Your task to perform on an android device: turn pop-ups on in chrome Image 0: 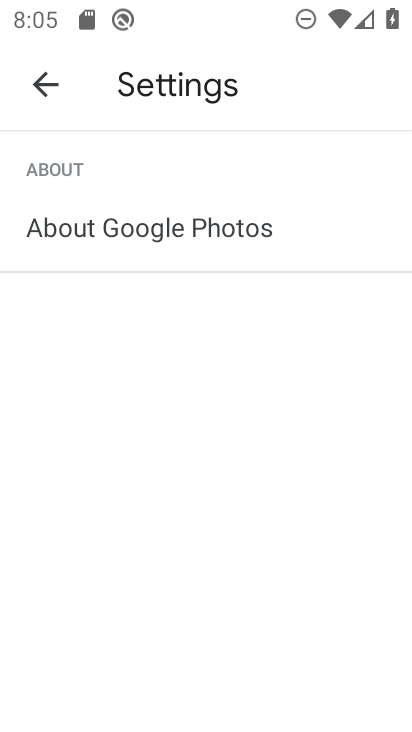
Step 0: click (24, 79)
Your task to perform on an android device: turn pop-ups on in chrome Image 1: 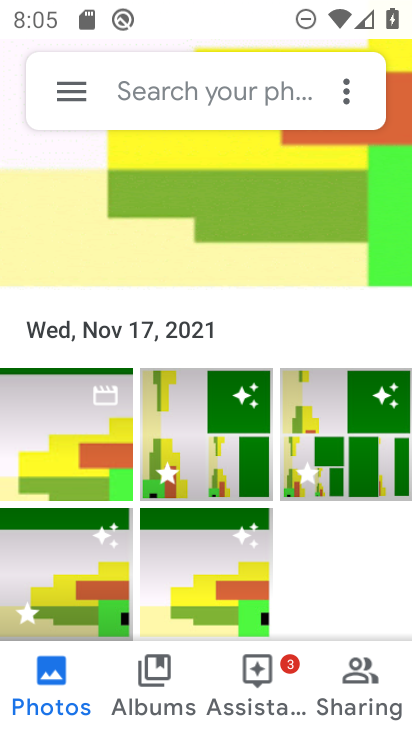
Step 1: press back button
Your task to perform on an android device: turn pop-ups on in chrome Image 2: 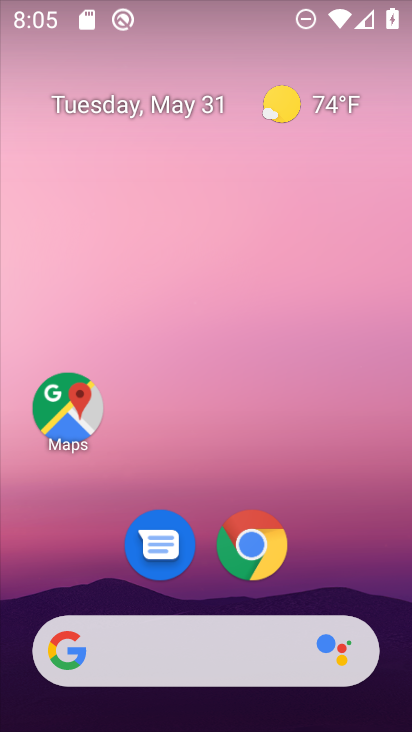
Step 2: drag from (327, 559) to (221, 1)
Your task to perform on an android device: turn pop-ups on in chrome Image 3: 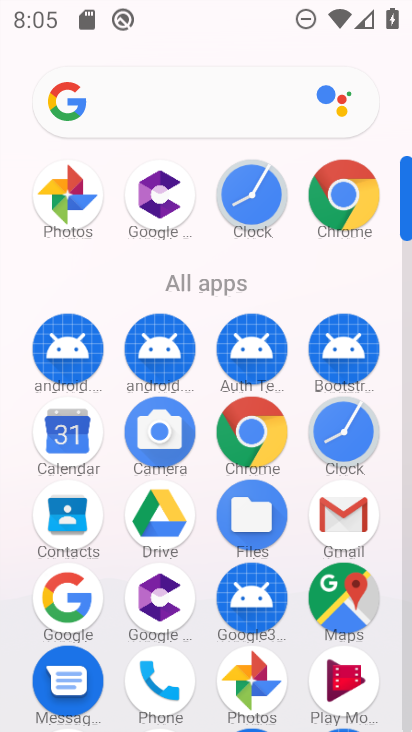
Step 3: drag from (11, 593) to (5, 212)
Your task to perform on an android device: turn pop-ups on in chrome Image 4: 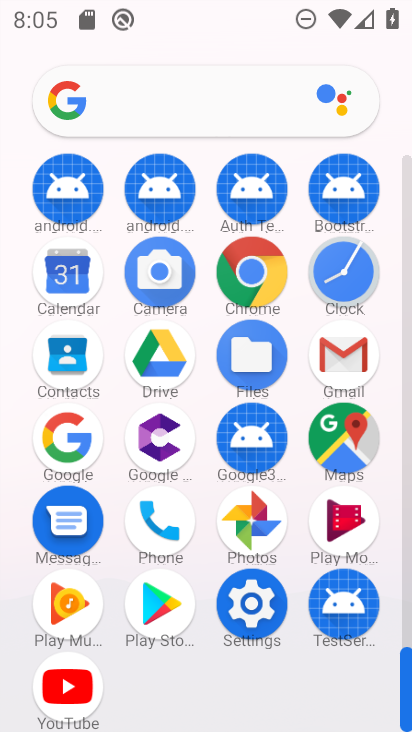
Step 4: click (244, 266)
Your task to perform on an android device: turn pop-ups on in chrome Image 5: 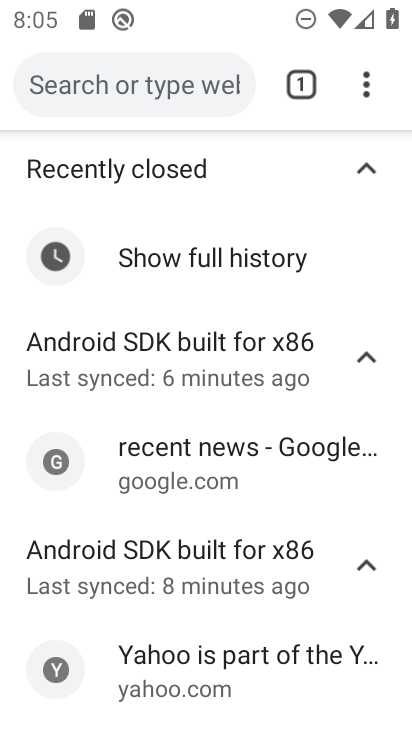
Step 5: drag from (364, 85) to (156, 586)
Your task to perform on an android device: turn pop-ups on in chrome Image 6: 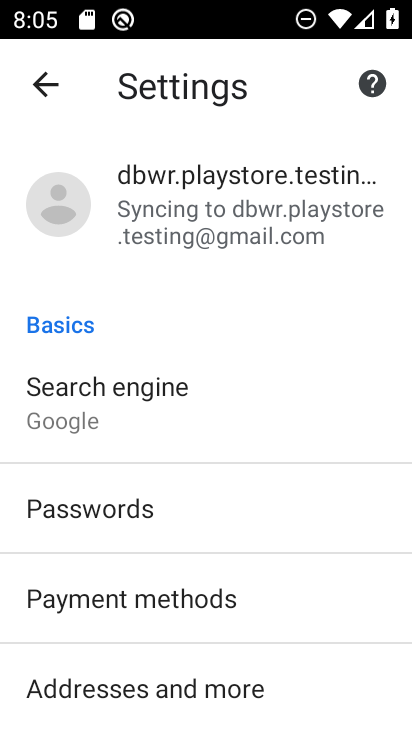
Step 6: drag from (227, 592) to (234, 214)
Your task to perform on an android device: turn pop-ups on in chrome Image 7: 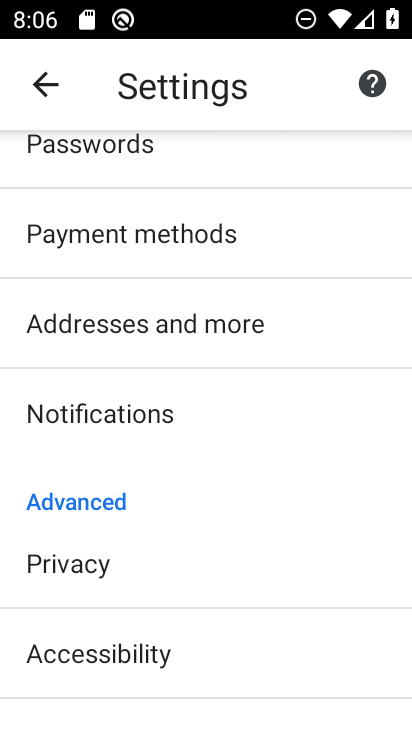
Step 7: drag from (252, 595) to (246, 159)
Your task to perform on an android device: turn pop-ups on in chrome Image 8: 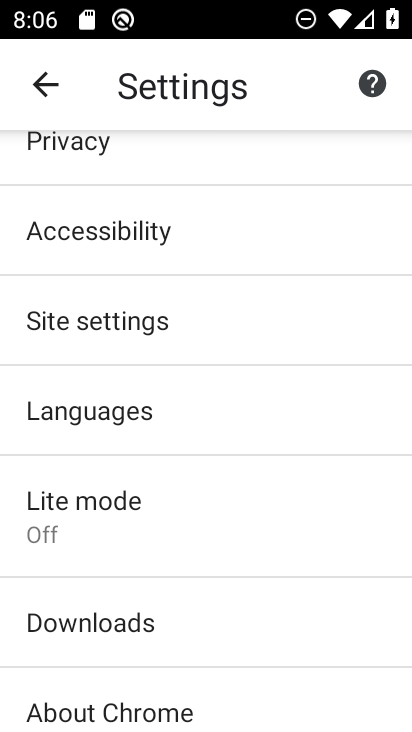
Step 8: click (195, 294)
Your task to perform on an android device: turn pop-ups on in chrome Image 9: 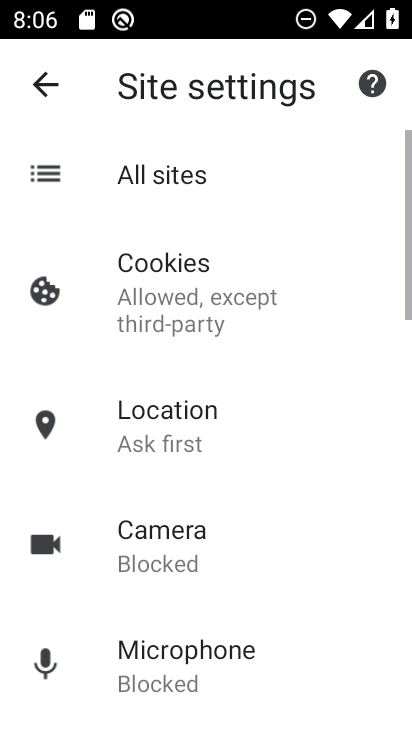
Step 9: drag from (234, 632) to (234, 178)
Your task to perform on an android device: turn pop-ups on in chrome Image 10: 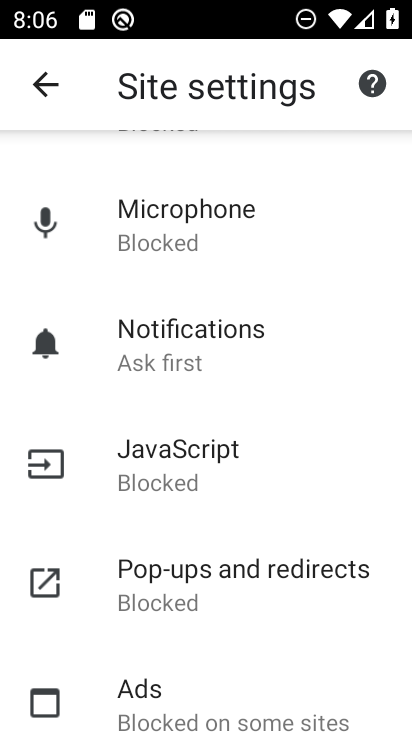
Step 10: click (229, 593)
Your task to perform on an android device: turn pop-ups on in chrome Image 11: 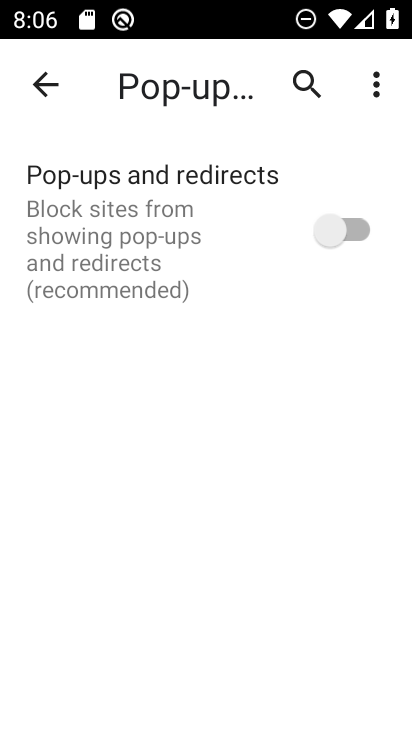
Step 11: click (335, 222)
Your task to perform on an android device: turn pop-ups on in chrome Image 12: 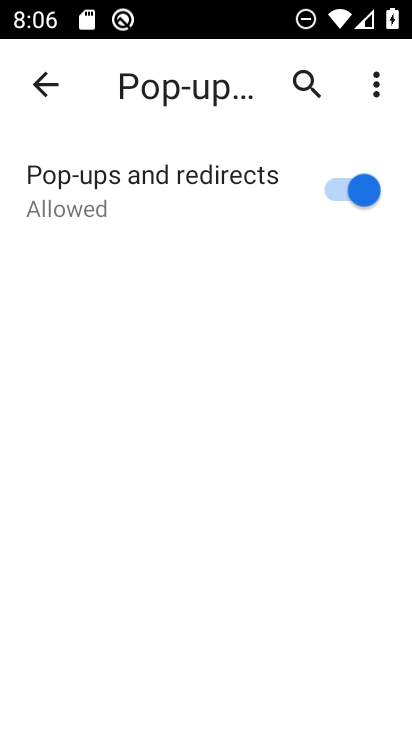
Step 12: task complete